Your task to perform on an android device: Open settings on Google Maps Image 0: 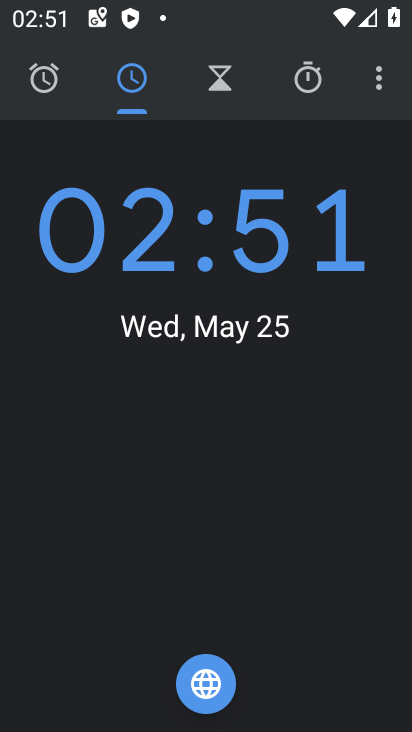
Step 0: press home button
Your task to perform on an android device: Open settings on Google Maps Image 1: 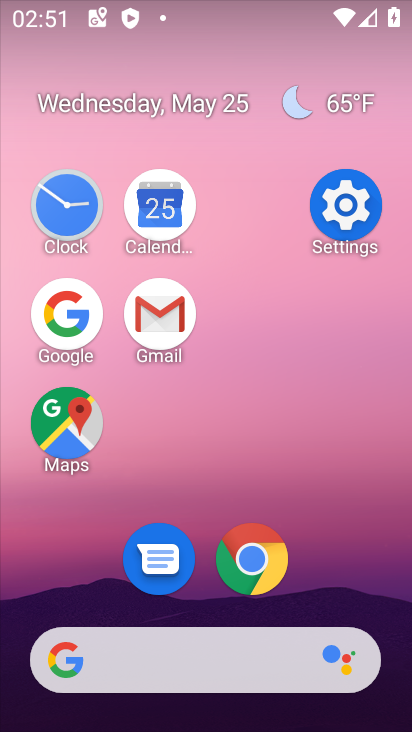
Step 1: click (65, 431)
Your task to perform on an android device: Open settings on Google Maps Image 2: 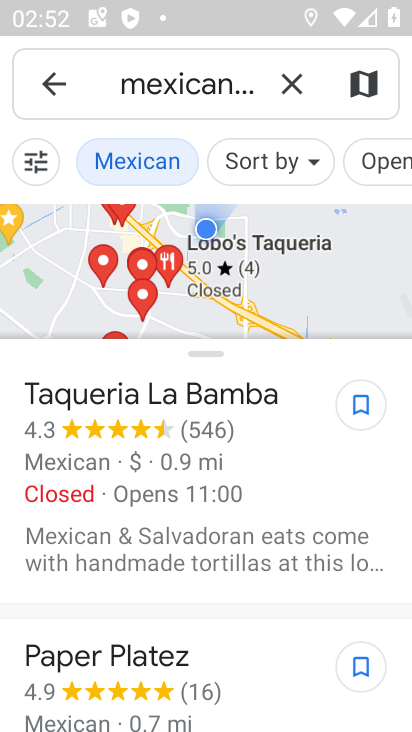
Step 2: click (66, 82)
Your task to perform on an android device: Open settings on Google Maps Image 3: 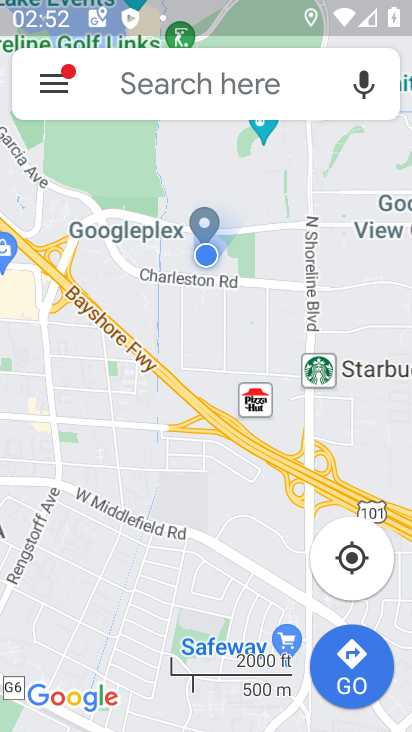
Step 3: click (53, 75)
Your task to perform on an android device: Open settings on Google Maps Image 4: 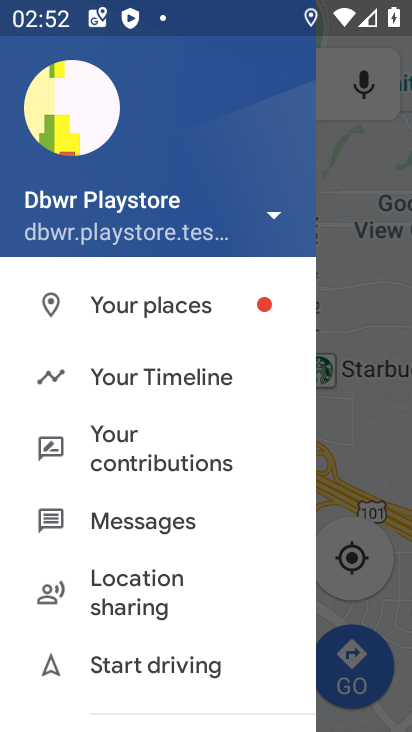
Step 4: drag from (127, 600) to (141, 257)
Your task to perform on an android device: Open settings on Google Maps Image 5: 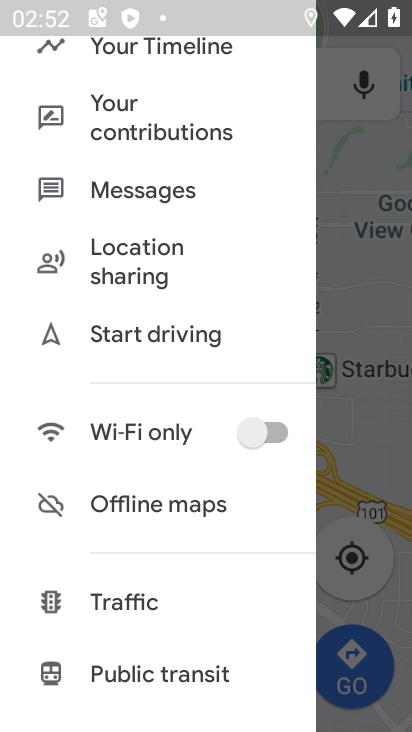
Step 5: drag from (135, 595) to (143, 207)
Your task to perform on an android device: Open settings on Google Maps Image 6: 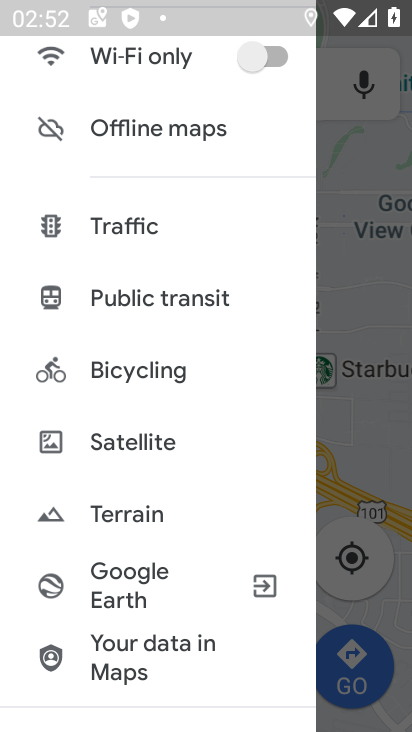
Step 6: drag from (170, 611) to (199, 120)
Your task to perform on an android device: Open settings on Google Maps Image 7: 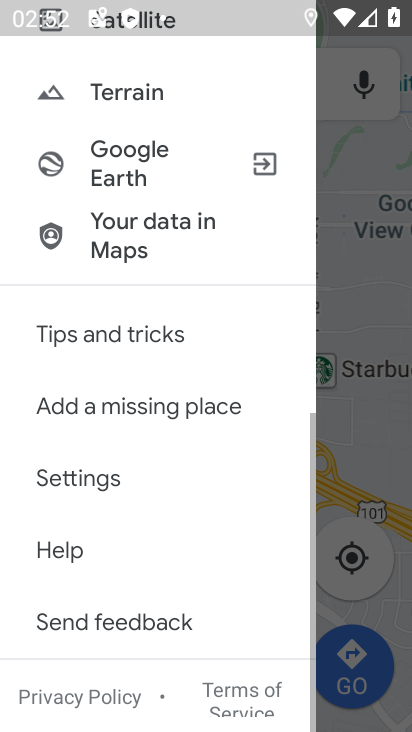
Step 7: click (110, 485)
Your task to perform on an android device: Open settings on Google Maps Image 8: 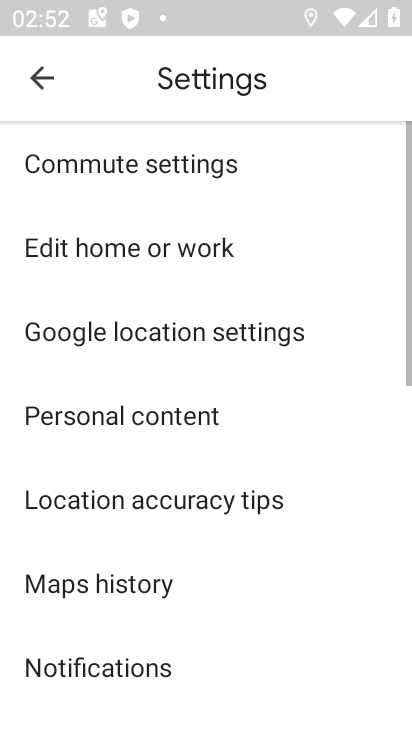
Step 8: task complete